Your task to perform on an android device: Turn on the flashlight Image 0: 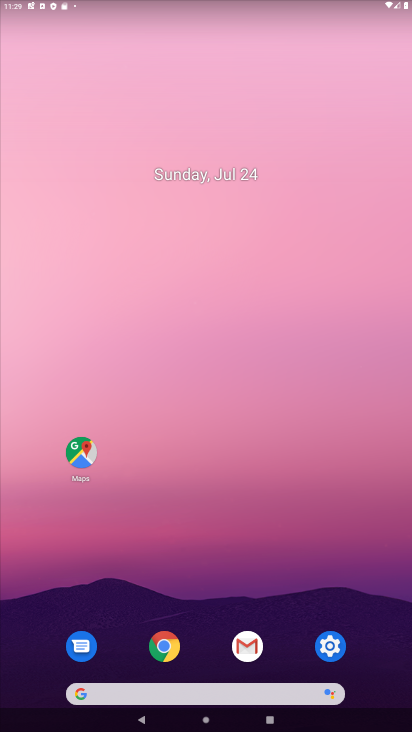
Step 0: click (318, 639)
Your task to perform on an android device: Turn on the flashlight Image 1: 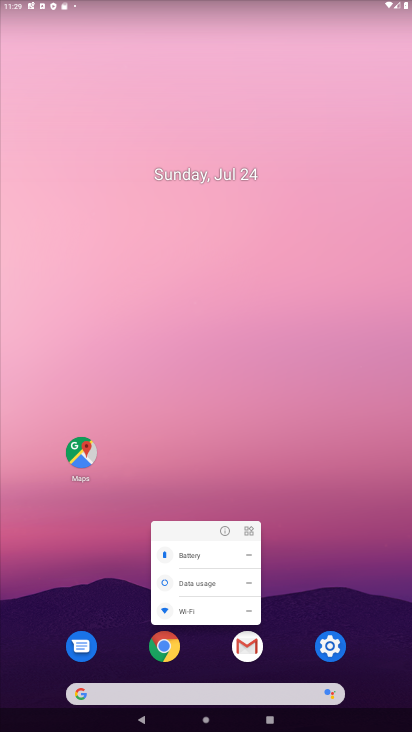
Step 1: click (327, 652)
Your task to perform on an android device: Turn on the flashlight Image 2: 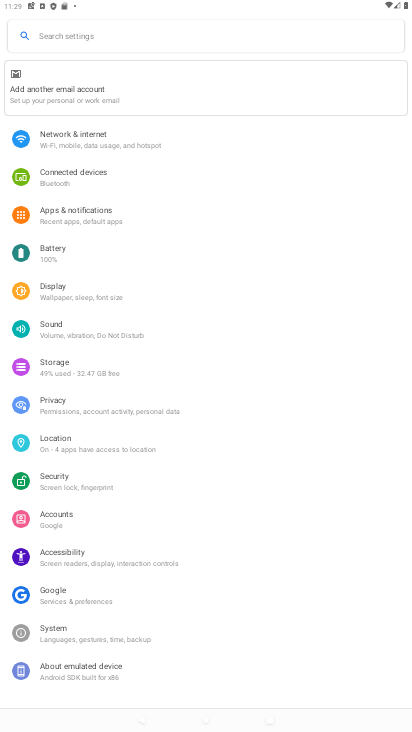
Step 2: click (57, 39)
Your task to perform on an android device: Turn on the flashlight Image 3: 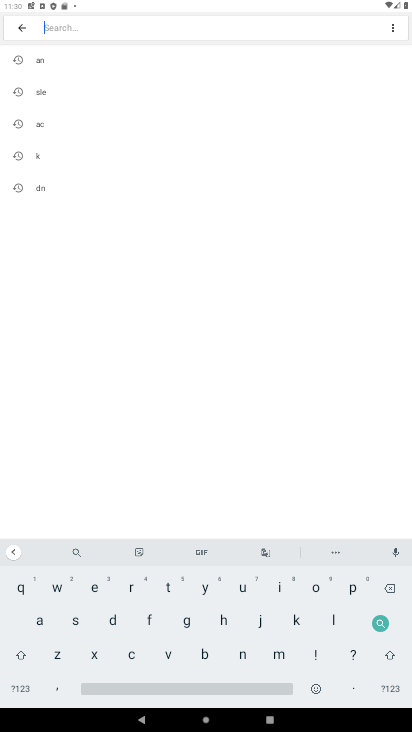
Step 3: click (152, 619)
Your task to perform on an android device: Turn on the flashlight Image 4: 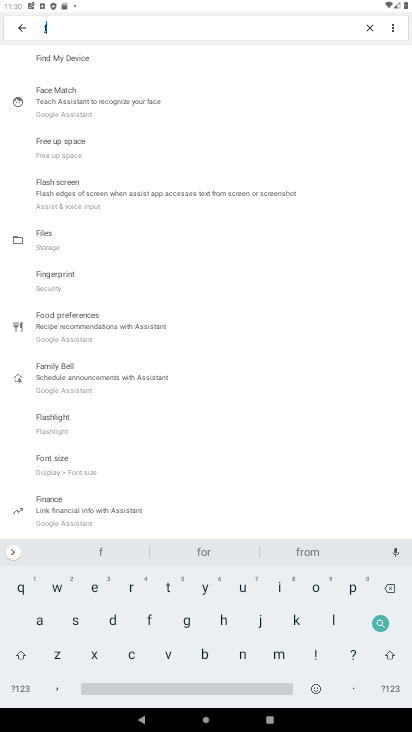
Step 4: click (333, 618)
Your task to perform on an android device: Turn on the flashlight Image 5: 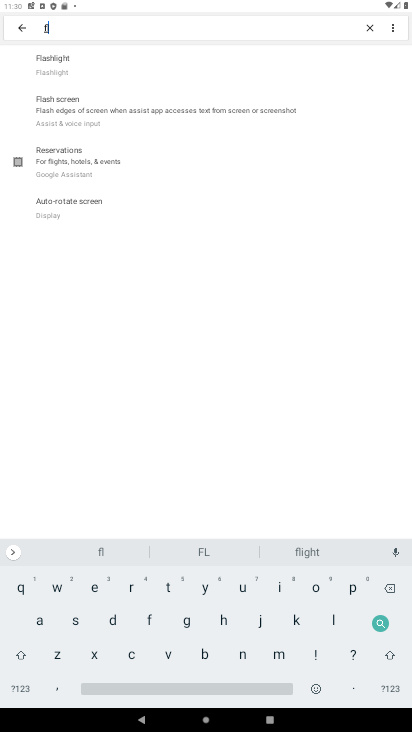
Step 5: click (100, 68)
Your task to perform on an android device: Turn on the flashlight Image 6: 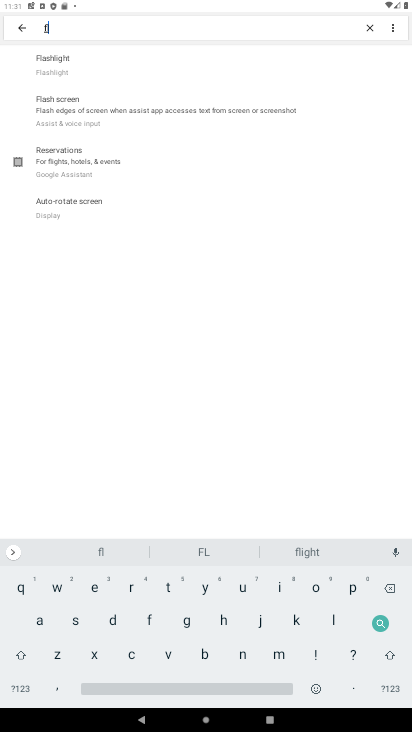
Step 6: click (45, 68)
Your task to perform on an android device: Turn on the flashlight Image 7: 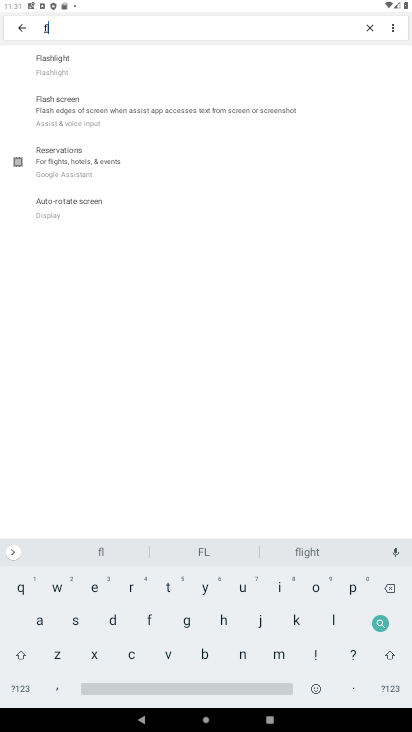
Step 7: task complete